Your task to perform on an android device: visit the assistant section in the google photos Image 0: 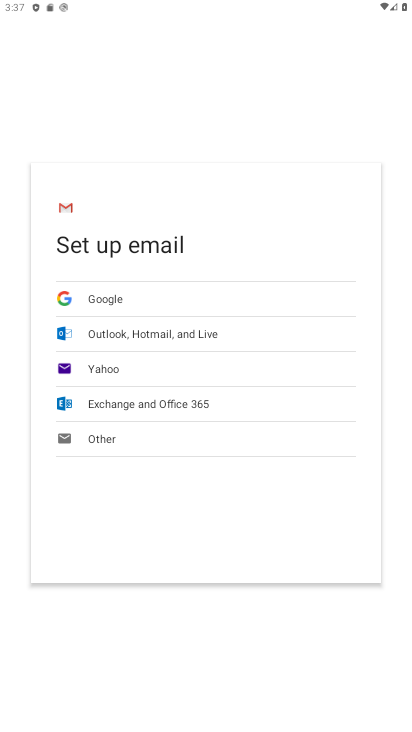
Step 0: press home button
Your task to perform on an android device: visit the assistant section in the google photos Image 1: 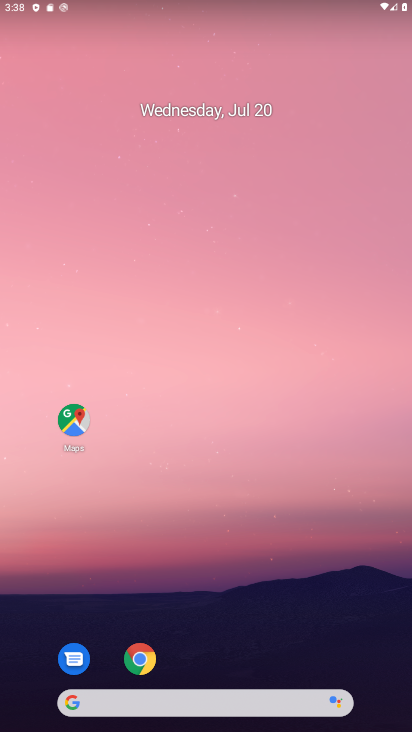
Step 1: drag from (241, 681) to (294, 243)
Your task to perform on an android device: visit the assistant section in the google photos Image 2: 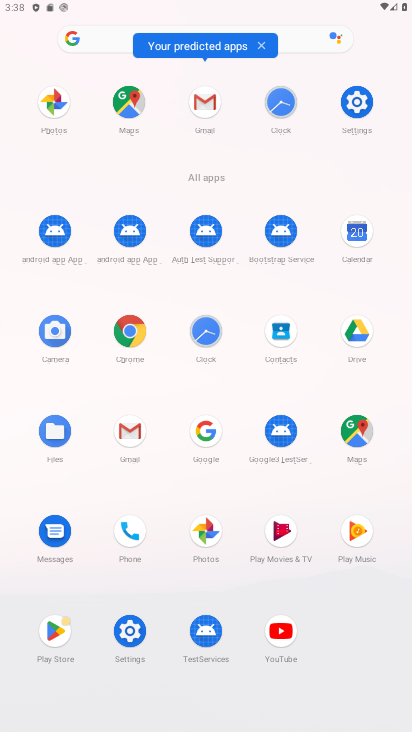
Step 2: click (214, 540)
Your task to perform on an android device: visit the assistant section in the google photos Image 3: 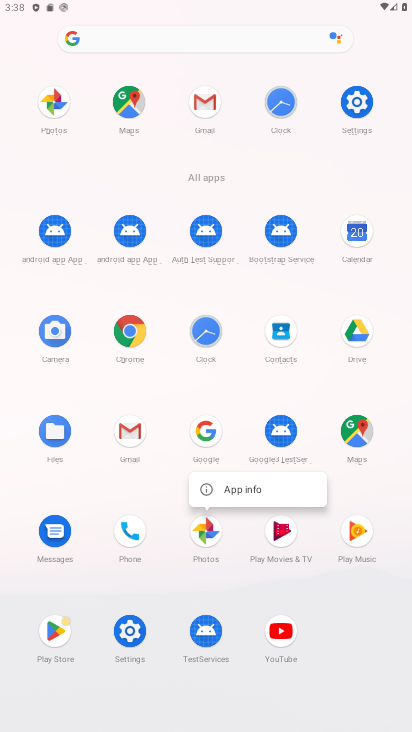
Step 3: click (212, 538)
Your task to perform on an android device: visit the assistant section in the google photos Image 4: 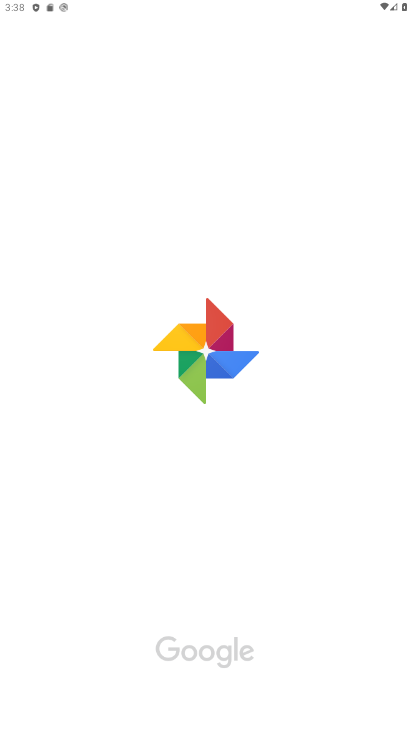
Step 4: click (201, 530)
Your task to perform on an android device: visit the assistant section in the google photos Image 5: 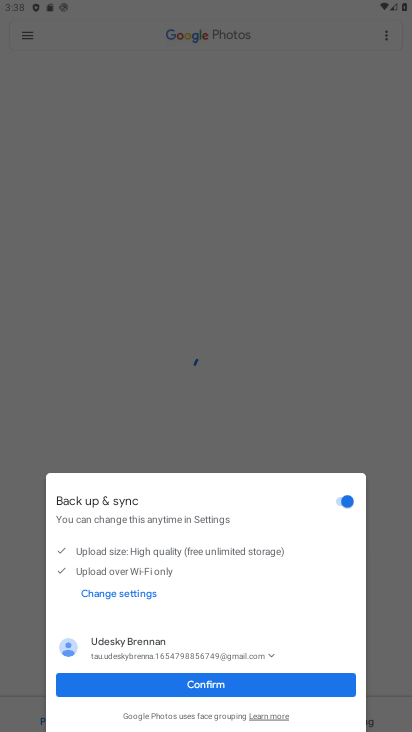
Step 5: click (216, 679)
Your task to perform on an android device: visit the assistant section in the google photos Image 6: 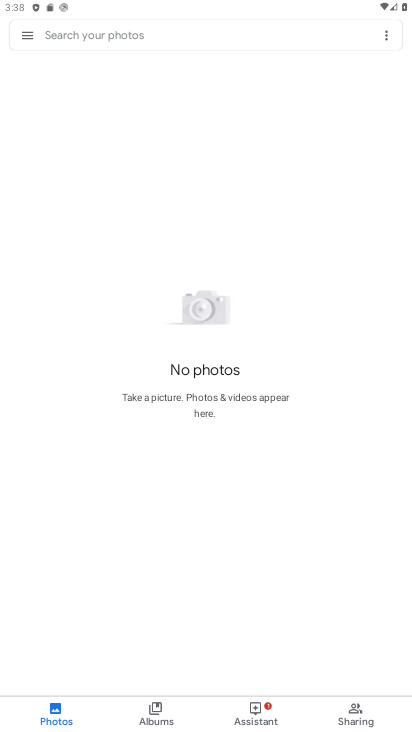
Step 6: click (269, 709)
Your task to perform on an android device: visit the assistant section in the google photos Image 7: 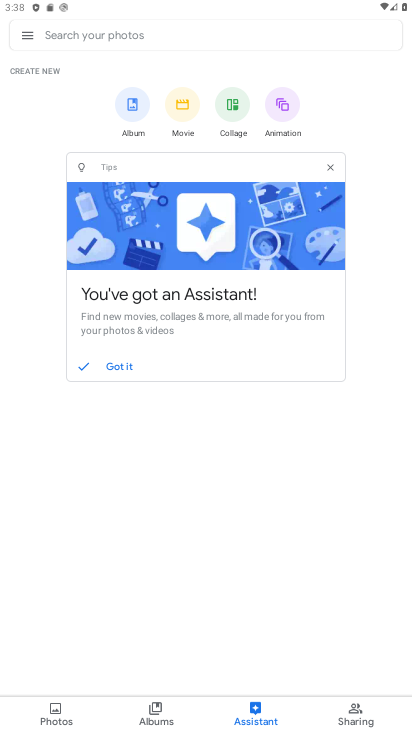
Step 7: task complete